Your task to perform on an android device: Open calendar and show me the fourth week of next month Image 0: 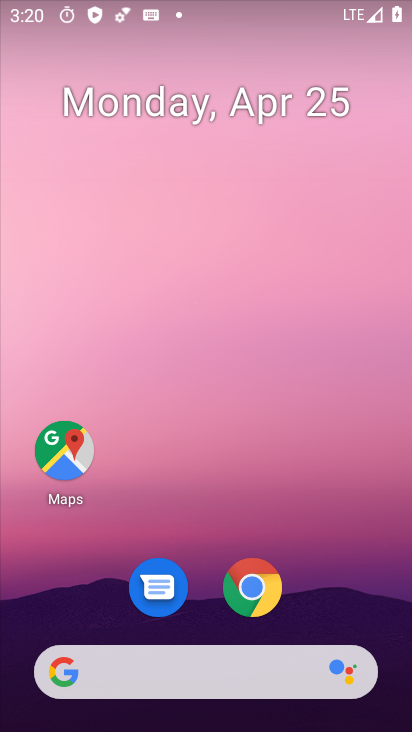
Step 0: click (342, 185)
Your task to perform on an android device: Open calendar and show me the fourth week of next month Image 1: 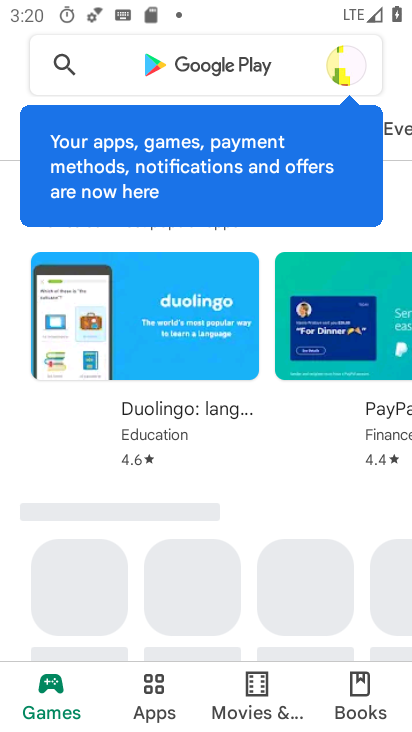
Step 1: press home button
Your task to perform on an android device: Open calendar and show me the fourth week of next month Image 2: 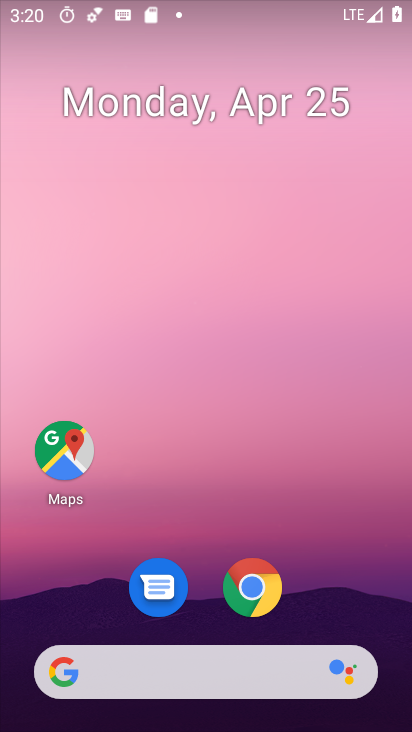
Step 2: drag from (353, 606) to (300, 163)
Your task to perform on an android device: Open calendar and show me the fourth week of next month Image 3: 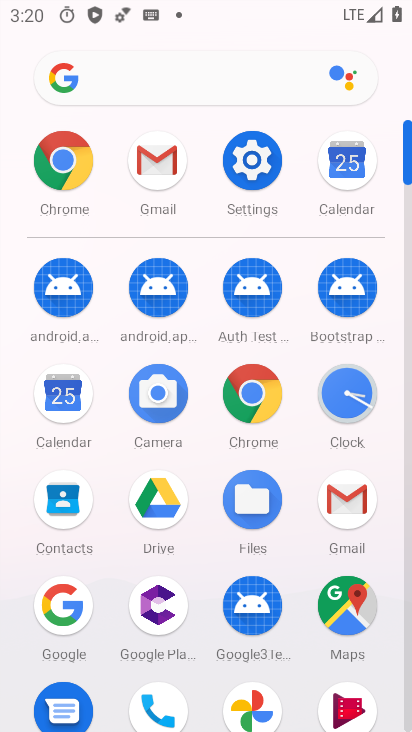
Step 3: click (349, 160)
Your task to perform on an android device: Open calendar and show me the fourth week of next month Image 4: 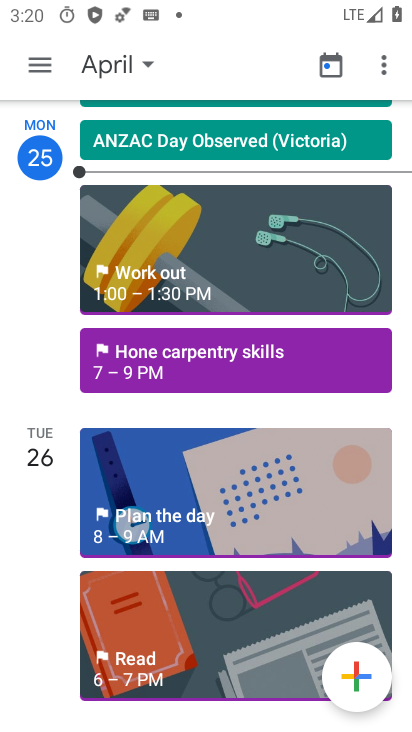
Step 4: click (116, 65)
Your task to perform on an android device: Open calendar and show me the fourth week of next month Image 5: 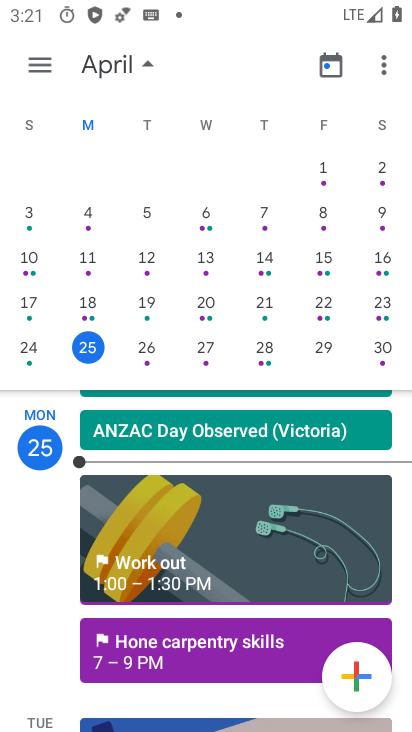
Step 5: drag from (350, 279) to (4, 264)
Your task to perform on an android device: Open calendar and show me the fourth week of next month Image 6: 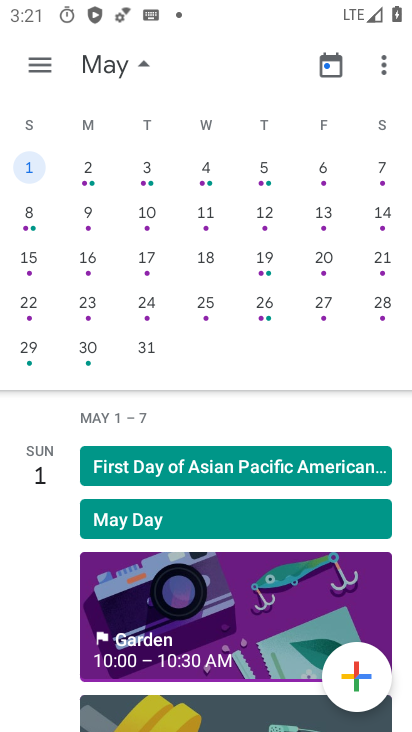
Step 6: click (83, 301)
Your task to perform on an android device: Open calendar and show me the fourth week of next month Image 7: 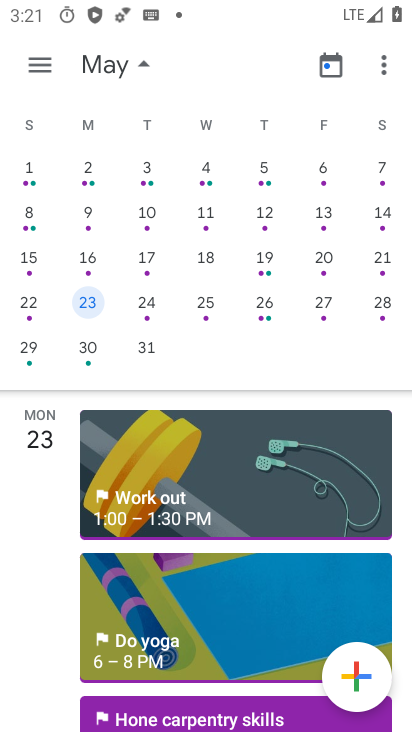
Step 7: task complete